Your task to perform on an android device: What is the speed of a jet? Image 0: 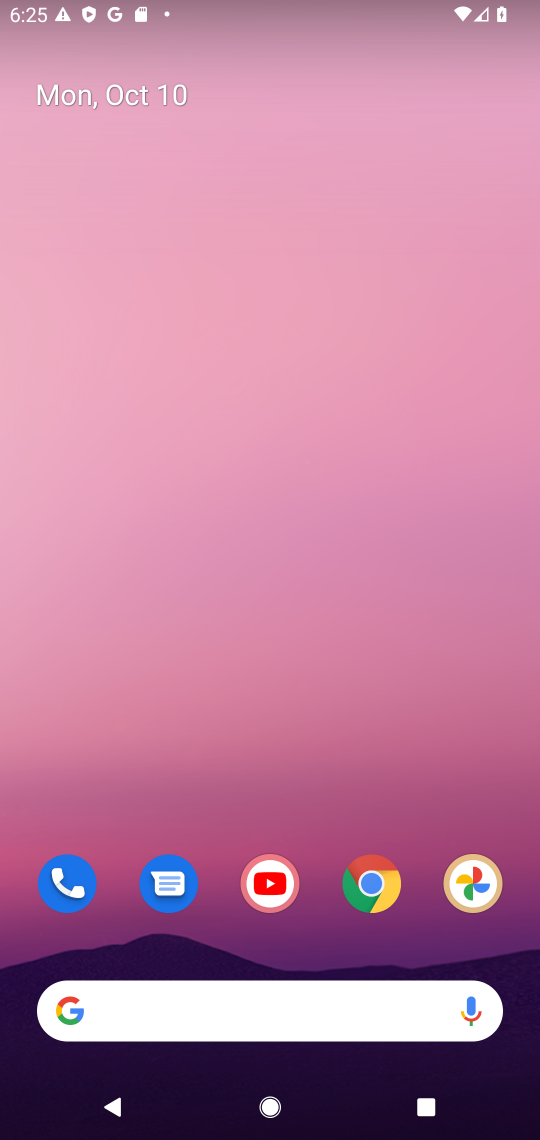
Step 0: drag from (357, 981) to (400, 160)
Your task to perform on an android device: What is the speed of a jet? Image 1: 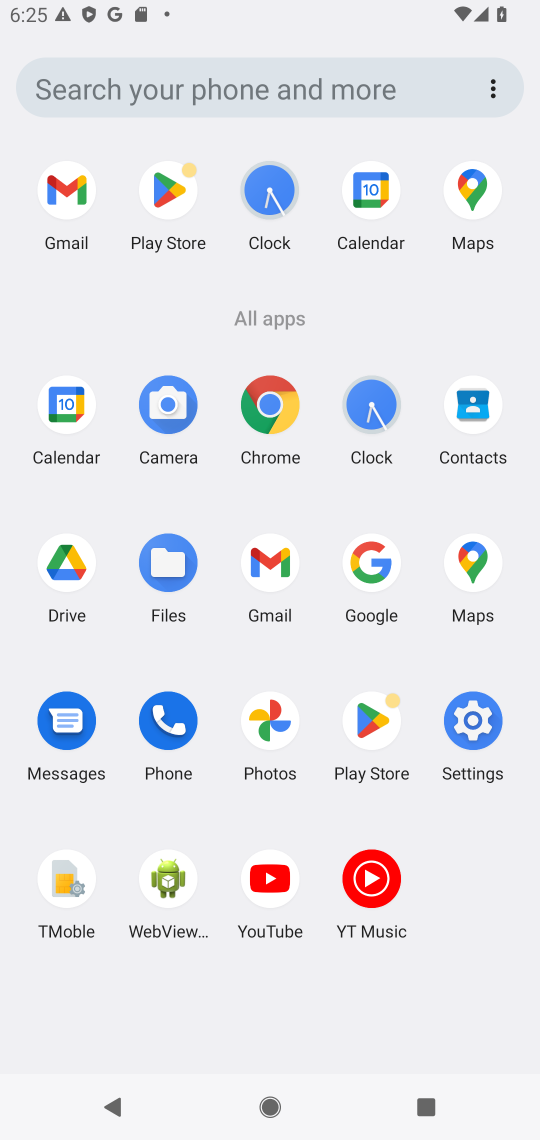
Step 1: click (378, 560)
Your task to perform on an android device: What is the speed of a jet? Image 2: 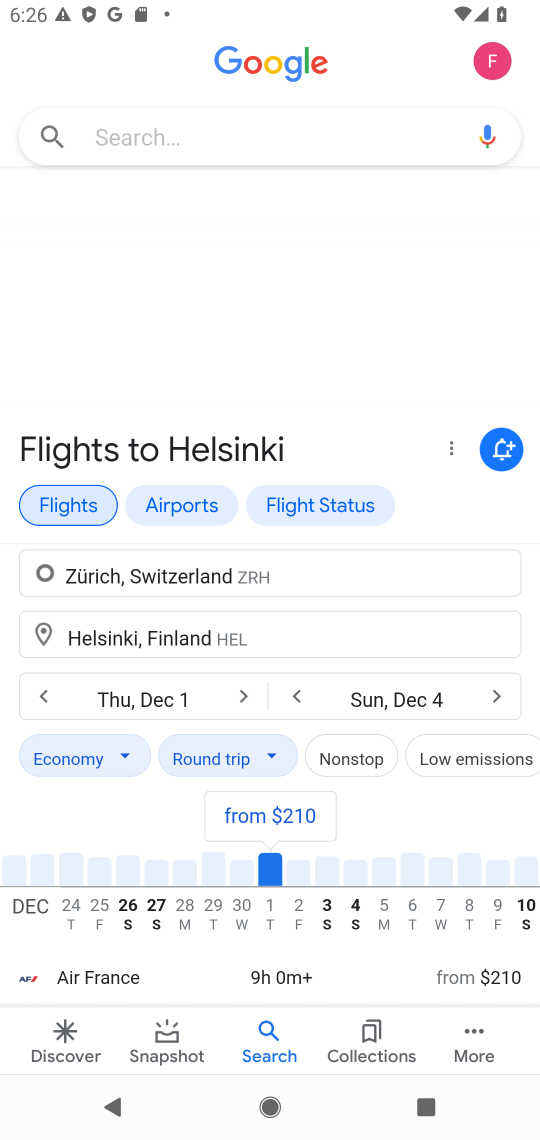
Step 2: click (230, 126)
Your task to perform on an android device: What is the speed of a jet? Image 3: 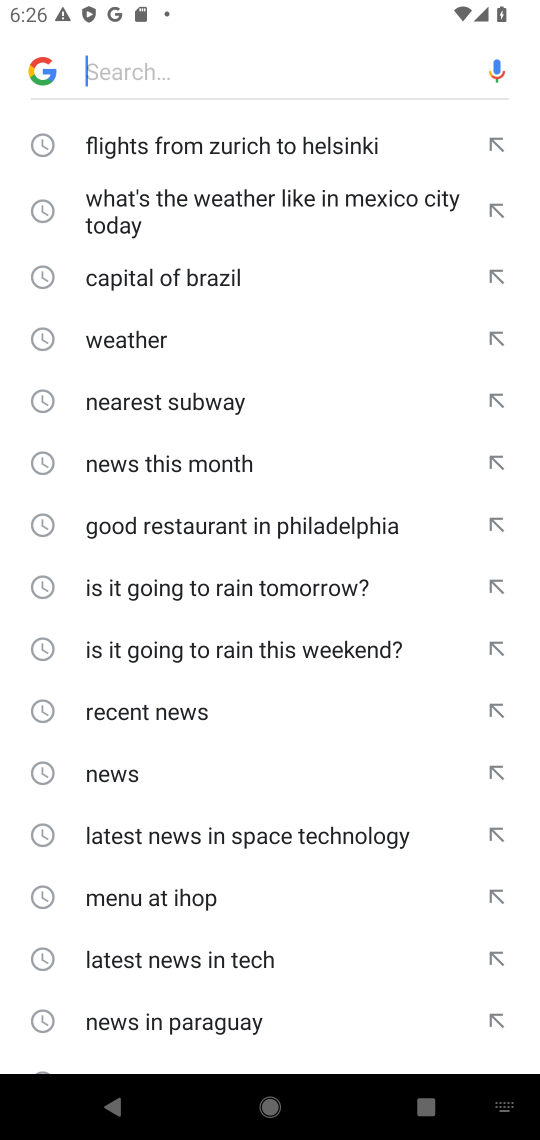
Step 3: type "What time is it?"
Your task to perform on an android device: What is the speed of a jet? Image 4: 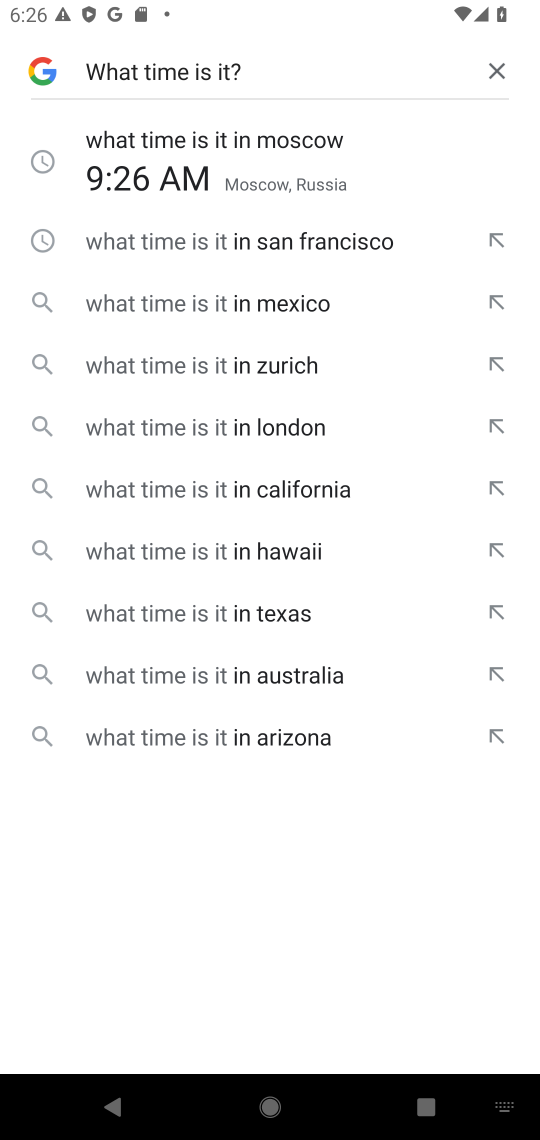
Step 4: click (495, 64)
Your task to perform on an android device: What is the speed of a jet? Image 5: 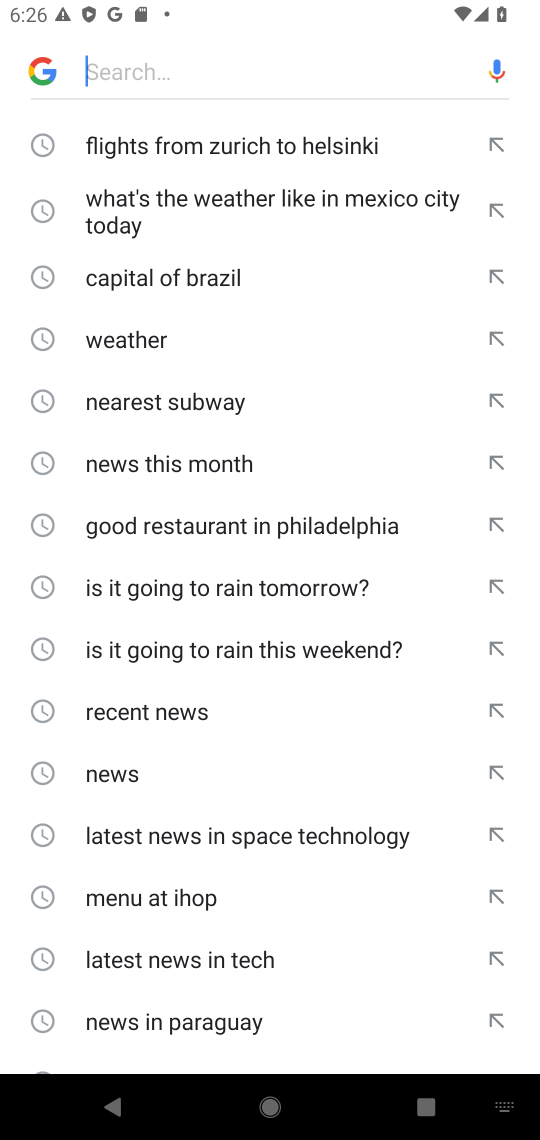
Step 5: type "What is the speed of a jet?"
Your task to perform on an android device: What is the speed of a jet? Image 6: 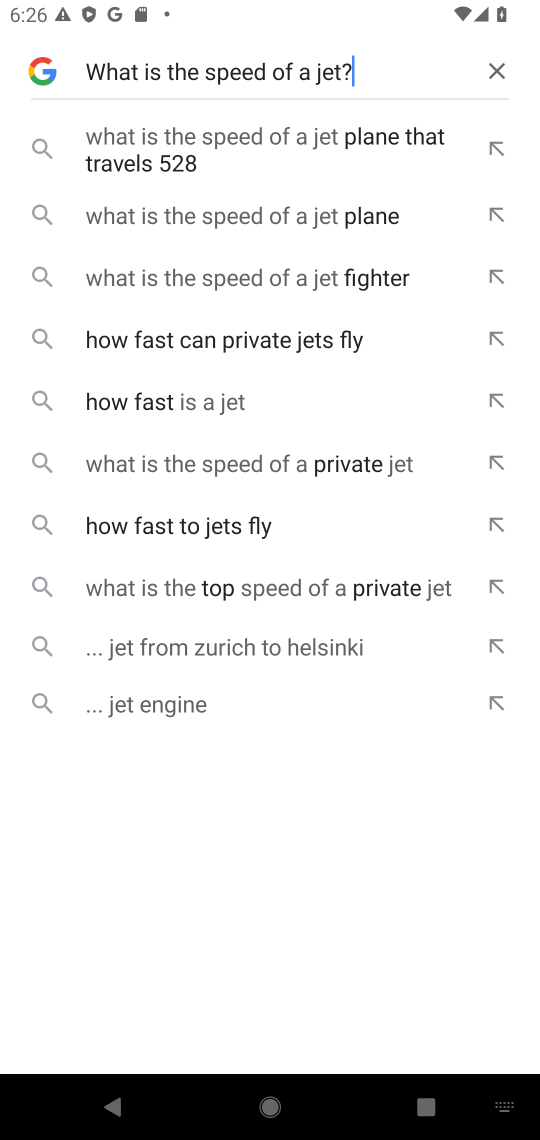
Step 6: click (317, 392)
Your task to perform on an android device: What is the speed of a jet? Image 7: 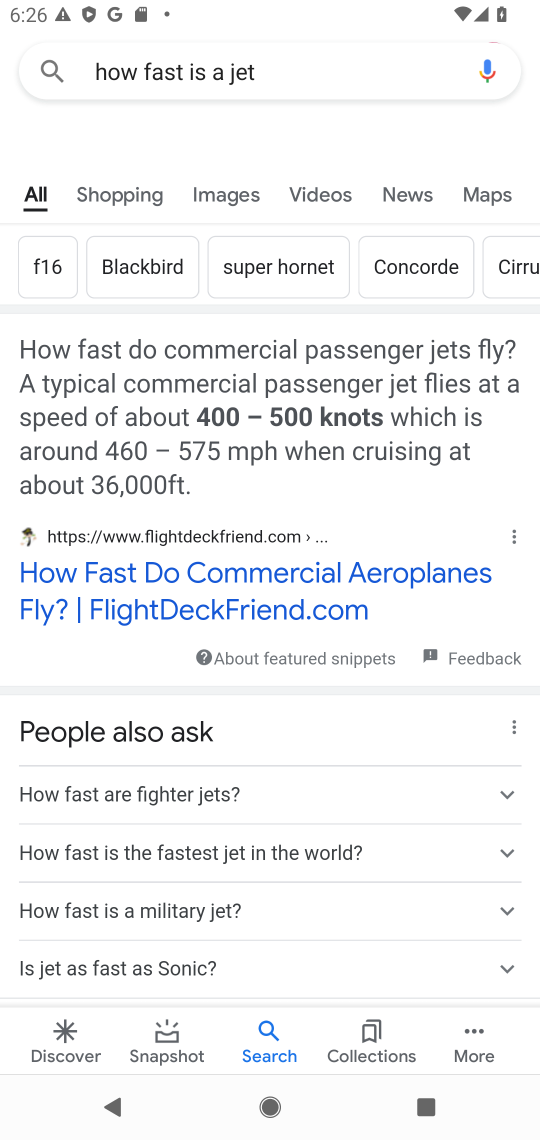
Step 7: task complete